Your task to perform on an android device: Open the Play Movies app and select the watchlist tab. Image 0: 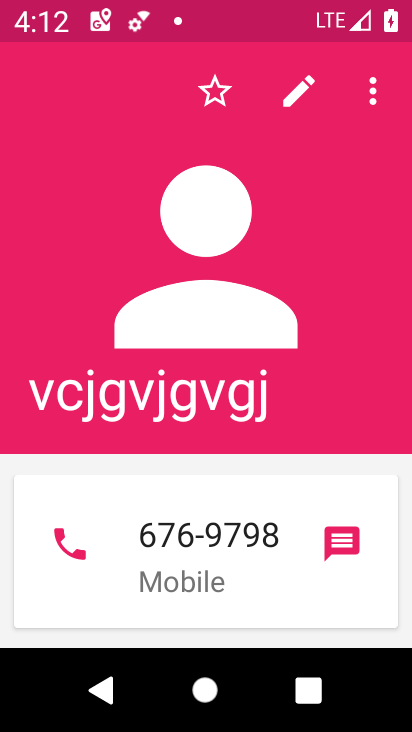
Step 0: press home button
Your task to perform on an android device: Open the Play Movies app and select the watchlist tab. Image 1: 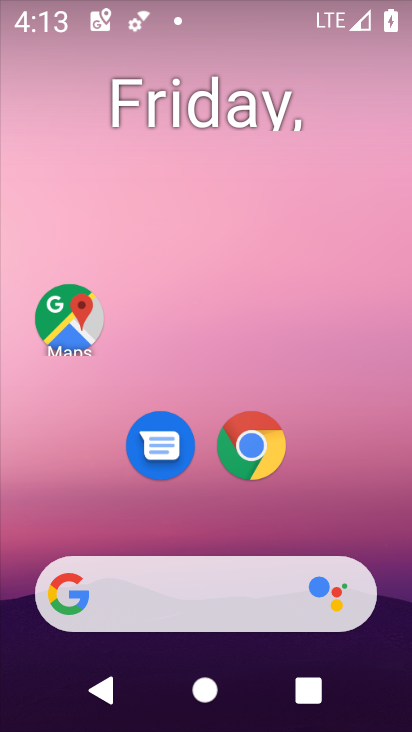
Step 1: drag from (393, 567) to (332, 65)
Your task to perform on an android device: Open the Play Movies app and select the watchlist tab. Image 2: 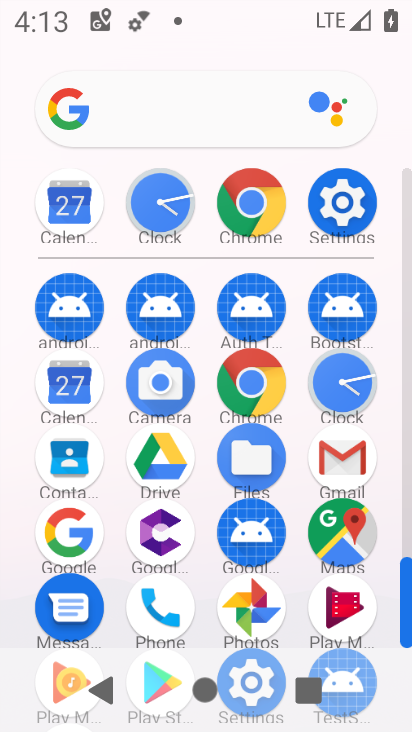
Step 2: click (349, 598)
Your task to perform on an android device: Open the Play Movies app and select the watchlist tab. Image 3: 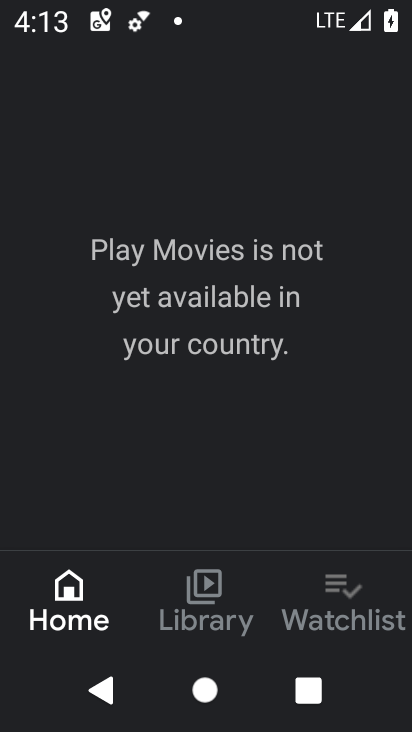
Step 3: click (394, 597)
Your task to perform on an android device: Open the Play Movies app and select the watchlist tab. Image 4: 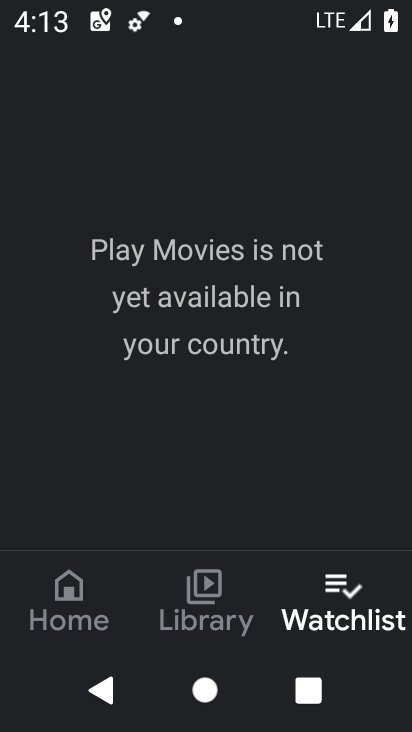
Step 4: task complete